Your task to perform on an android device: toggle javascript in the chrome app Image 0: 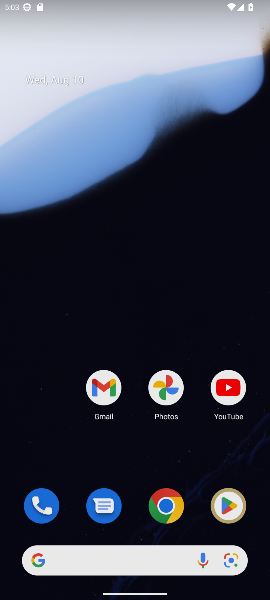
Step 0: press home button
Your task to perform on an android device: toggle javascript in the chrome app Image 1: 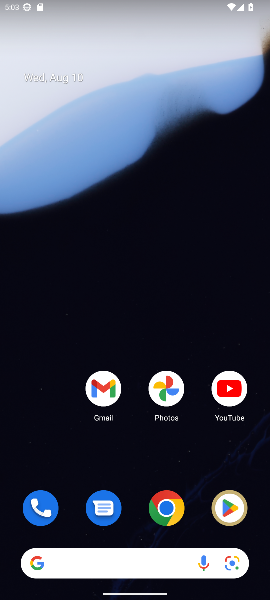
Step 1: click (173, 511)
Your task to perform on an android device: toggle javascript in the chrome app Image 2: 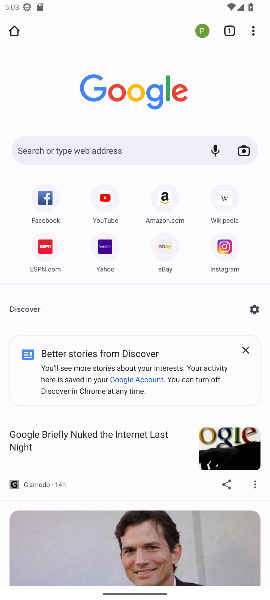
Step 2: click (254, 21)
Your task to perform on an android device: toggle javascript in the chrome app Image 3: 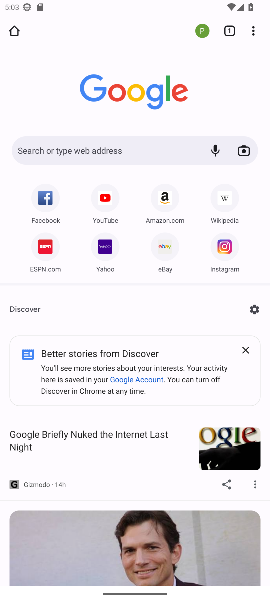
Step 3: drag from (255, 33) to (165, 284)
Your task to perform on an android device: toggle javascript in the chrome app Image 4: 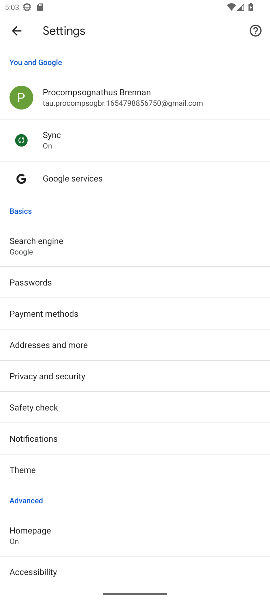
Step 4: drag from (122, 501) to (55, 259)
Your task to perform on an android device: toggle javascript in the chrome app Image 5: 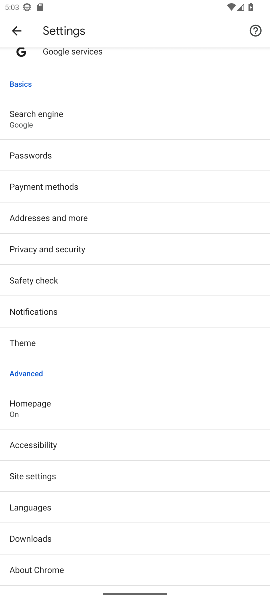
Step 5: click (22, 475)
Your task to perform on an android device: toggle javascript in the chrome app Image 6: 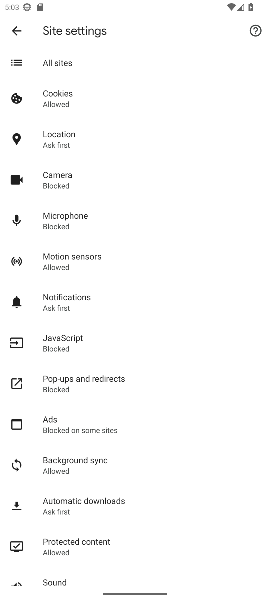
Step 6: click (63, 343)
Your task to perform on an android device: toggle javascript in the chrome app Image 7: 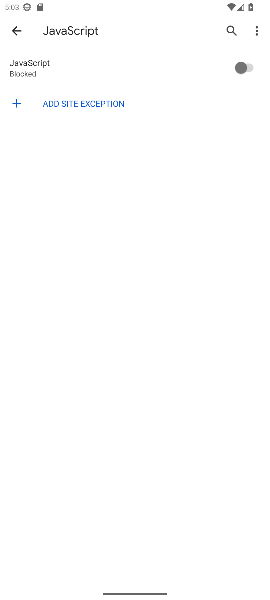
Step 7: click (242, 68)
Your task to perform on an android device: toggle javascript in the chrome app Image 8: 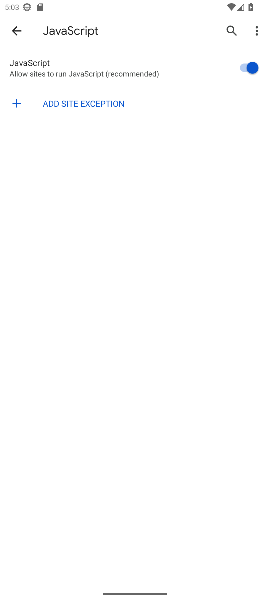
Step 8: task complete